Your task to perform on an android device: Search for "corsair k70" on newegg.com, select the first entry, add it to the cart, then select checkout. Image 0: 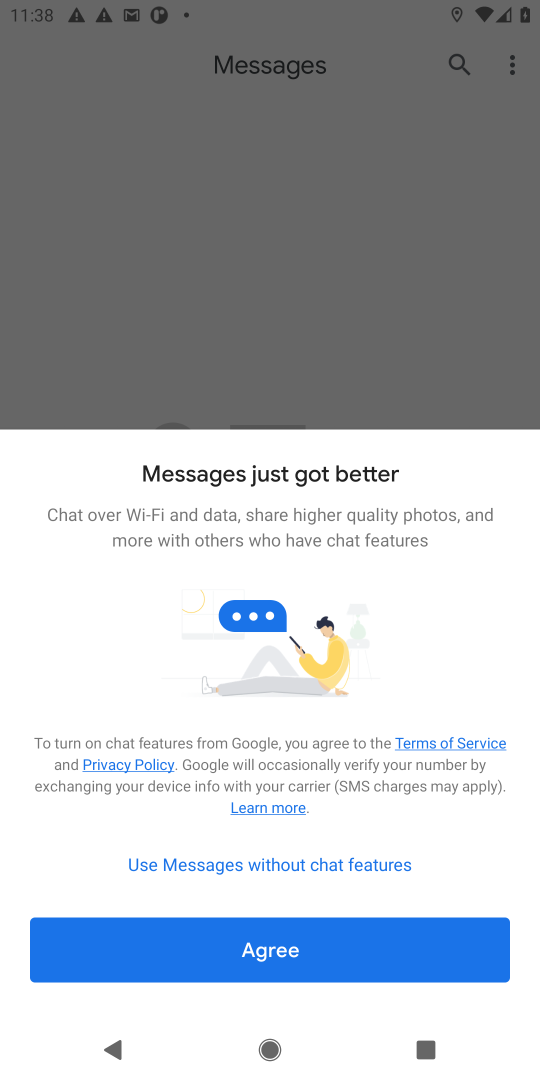
Step 0: press home button
Your task to perform on an android device: Search for "corsair k70" on newegg.com, select the first entry, add it to the cart, then select checkout. Image 1: 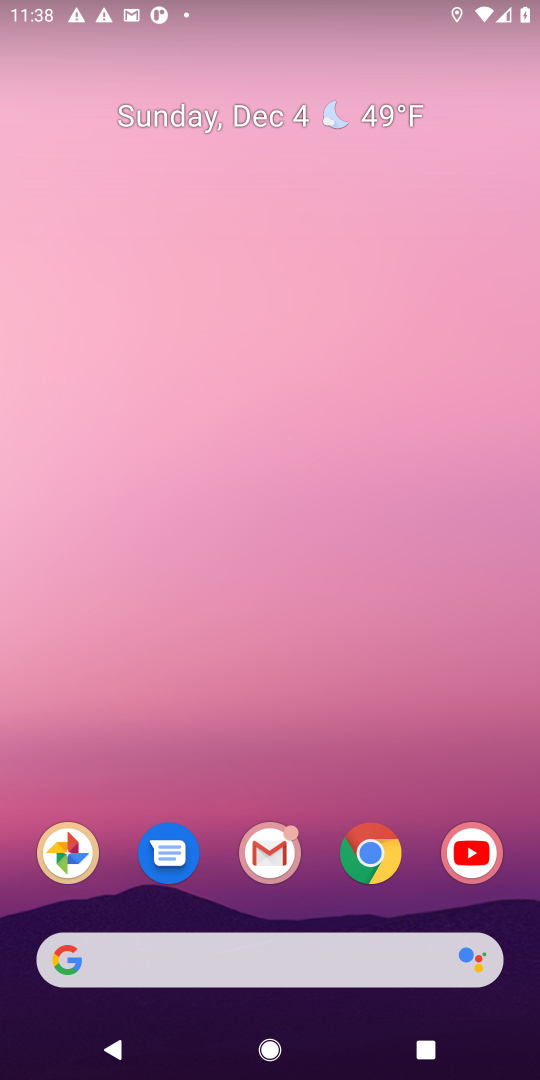
Step 1: click (385, 838)
Your task to perform on an android device: Search for "corsair k70" on newegg.com, select the first entry, add it to the cart, then select checkout. Image 2: 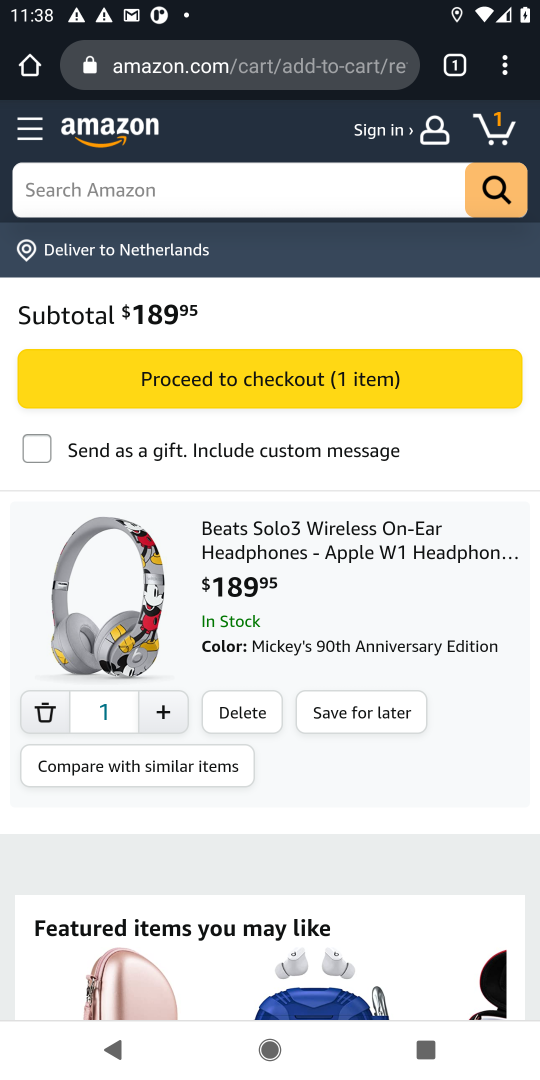
Step 2: click (271, 63)
Your task to perform on an android device: Search for "corsair k70" on newegg.com, select the first entry, add it to the cart, then select checkout. Image 3: 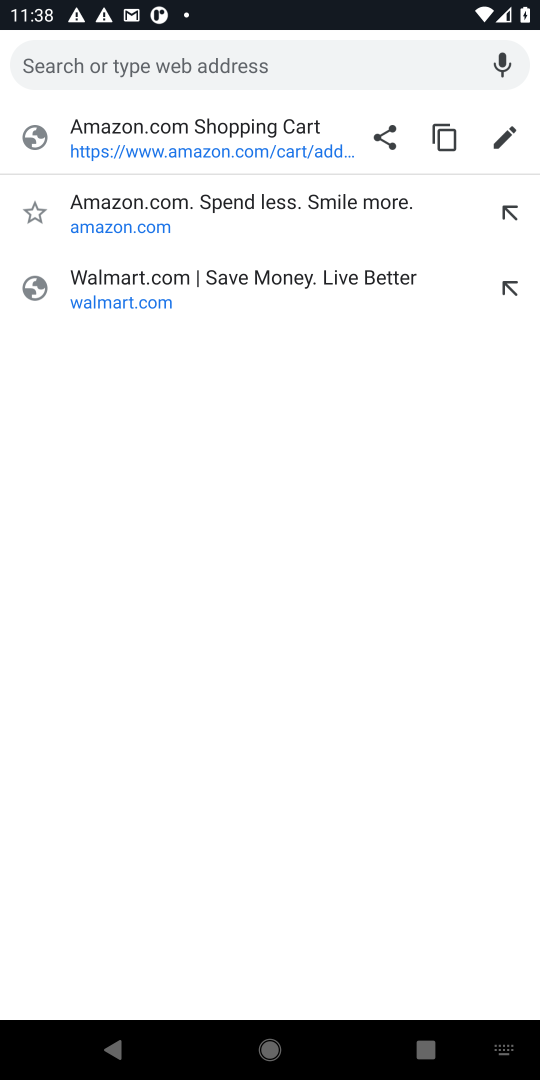
Step 3: type "newegg"
Your task to perform on an android device: Search for "corsair k70" on newegg.com, select the first entry, add it to the cart, then select checkout. Image 4: 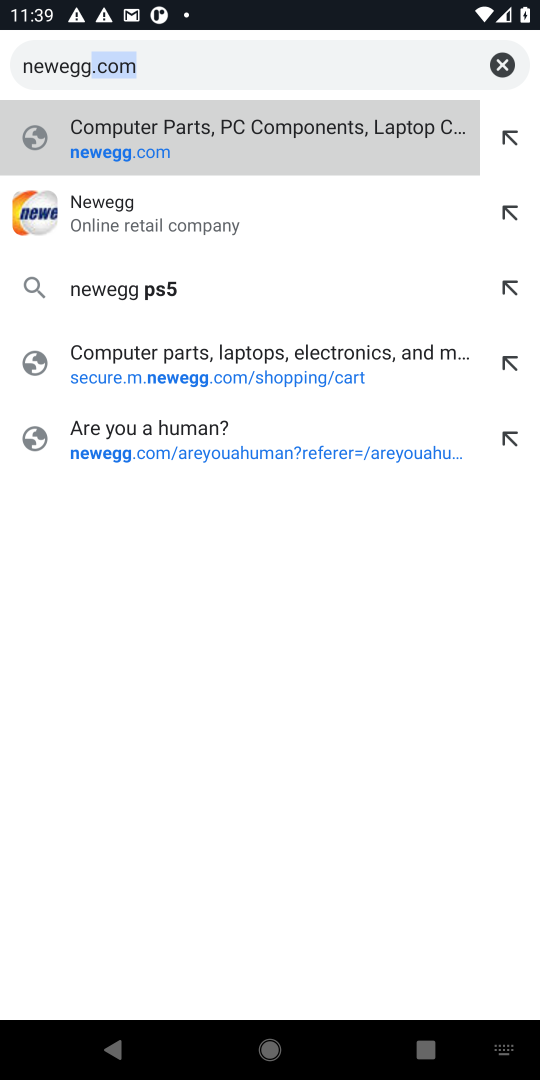
Step 4: click (270, 154)
Your task to perform on an android device: Search for "corsair k70" on newegg.com, select the first entry, add it to the cart, then select checkout. Image 5: 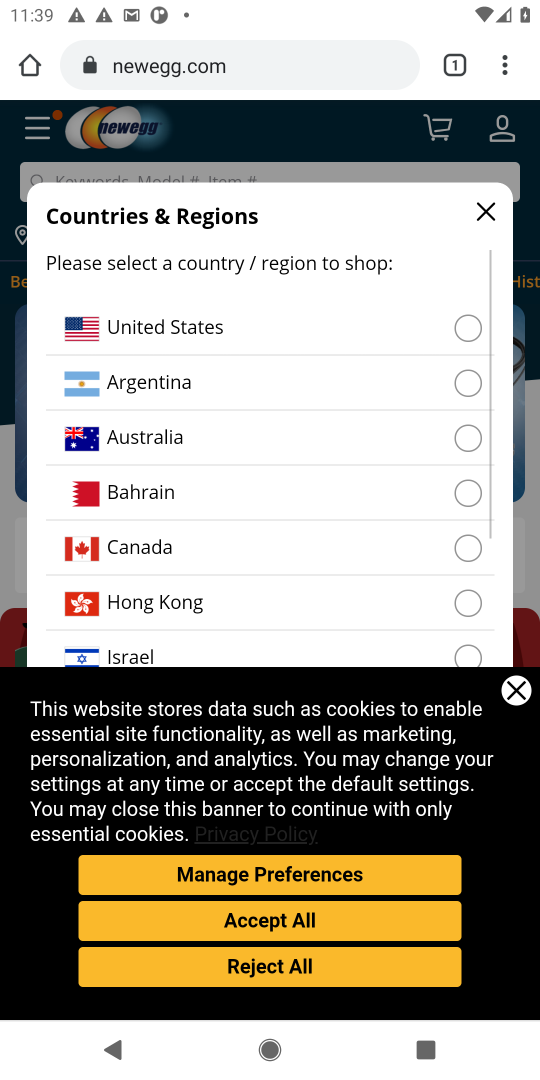
Step 5: click (224, 930)
Your task to perform on an android device: Search for "corsair k70" on newegg.com, select the first entry, add it to the cart, then select checkout. Image 6: 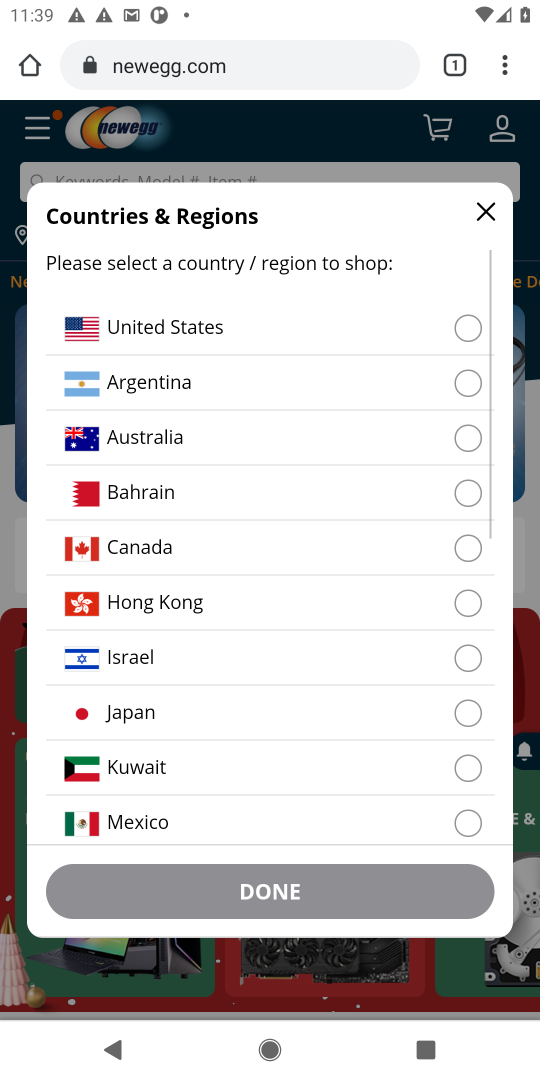
Step 6: click (139, 812)
Your task to perform on an android device: Search for "corsair k70" on newegg.com, select the first entry, add it to the cart, then select checkout. Image 7: 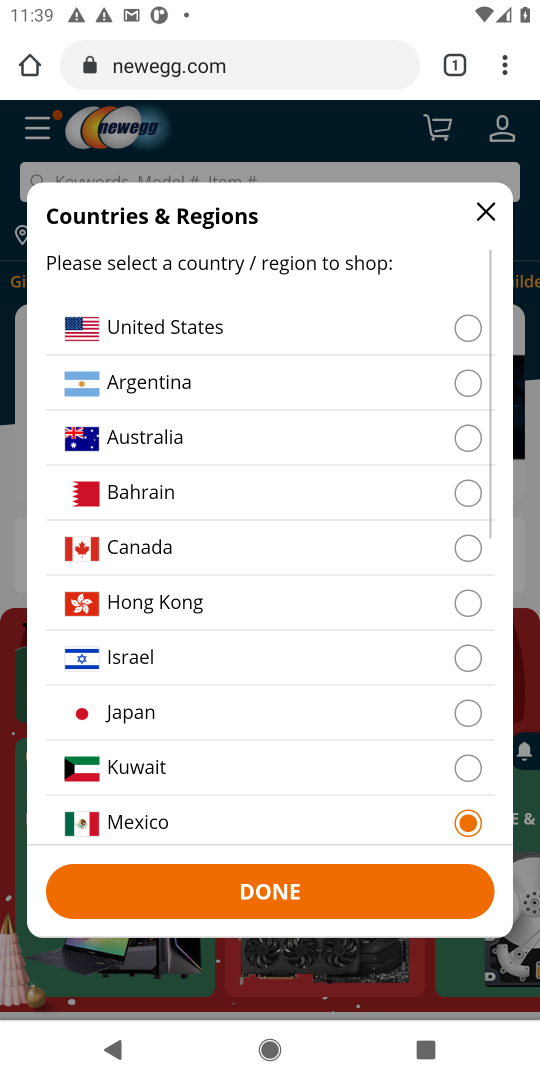
Step 7: click (161, 871)
Your task to perform on an android device: Search for "corsair k70" on newegg.com, select the first entry, add it to the cart, then select checkout. Image 8: 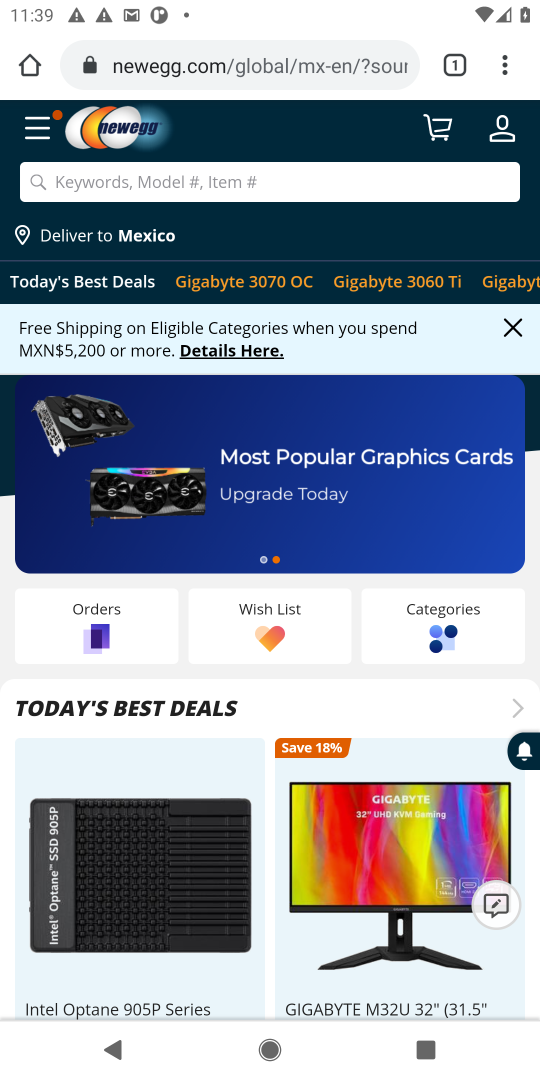
Step 8: click (74, 181)
Your task to perform on an android device: Search for "corsair k70" on newegg.com, select the first entry, add it to the cart, then select checkout. Image 9: 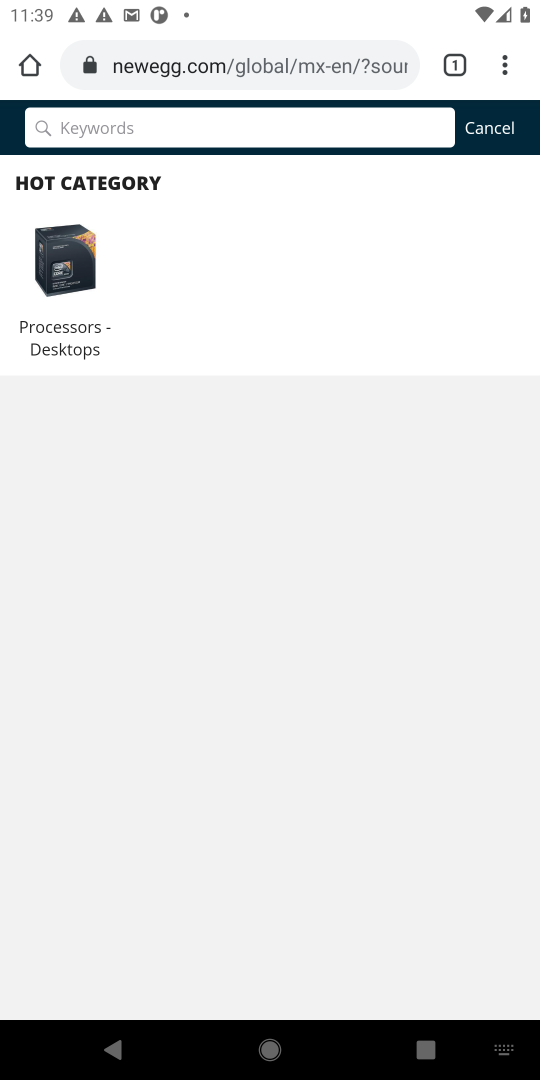
Step 9: type "corsair k70"
Your task to perform on an android device: Search for "corsair k70" on newegg.com, select the first entry, add it to the cart, then select checkout. Image 10: 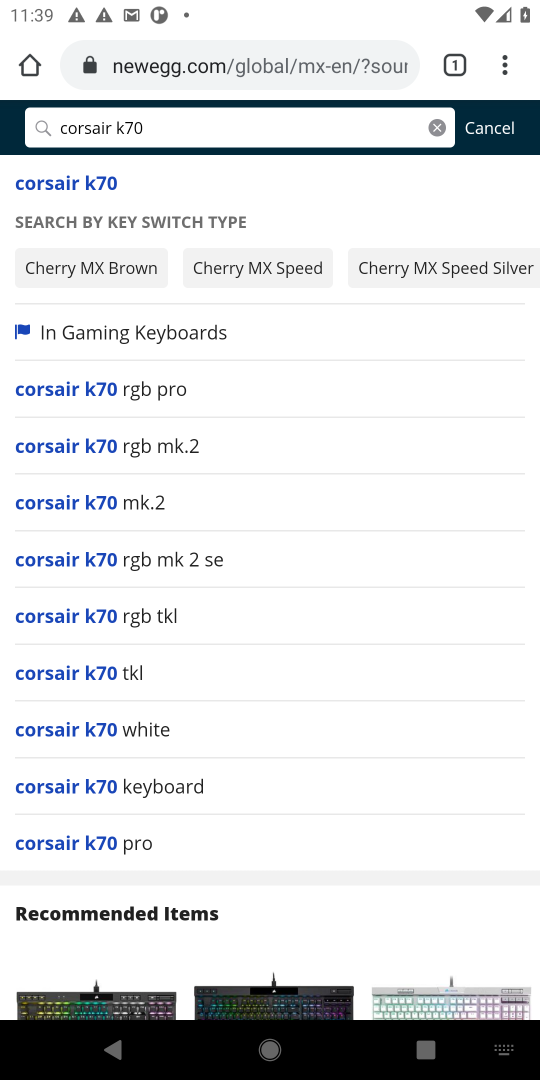
Step 10: click (107, 178)
Your task to perform on an android device: Search for "corsair k70" on newegg.com, select the first entry, add it to the cart, then select checkout. Image 11: 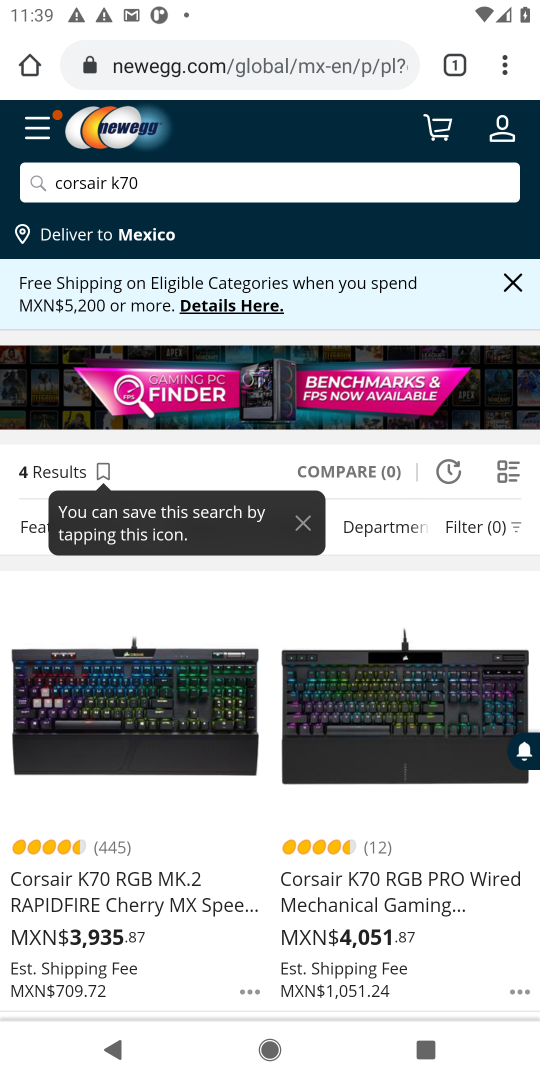
Step 11: click (120, 925)
Your task to perform on an android device: Search for "corsair k70" on newegg.com, select the first entry, add it to the cart, then select checkout. Image 12: 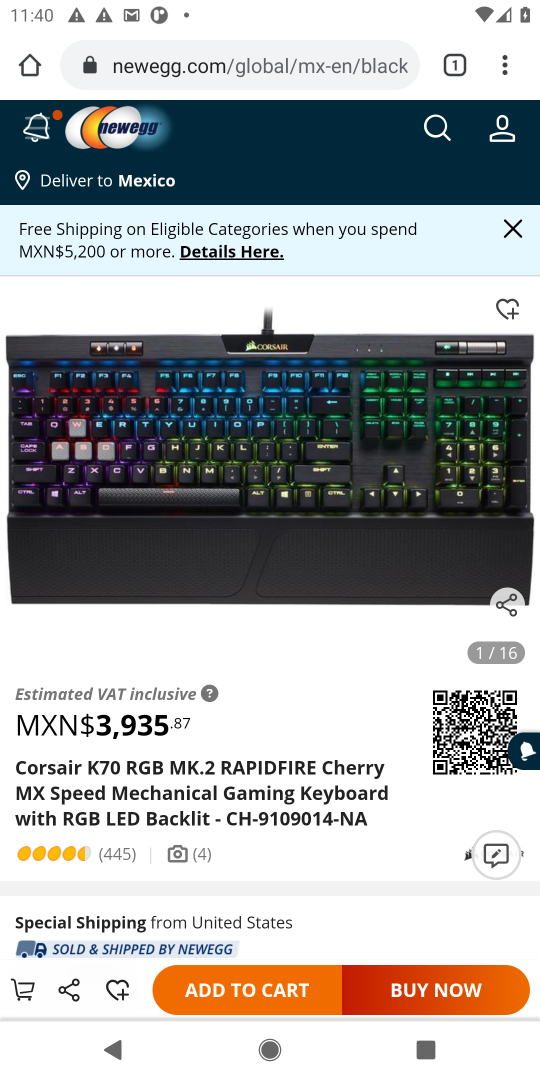
Step 12: click (229, 981)
Your task to perform on an android device: Search for "corsair k70" on newegg.com, select the first entry, add it to the cart, then select checkout. Image 13: 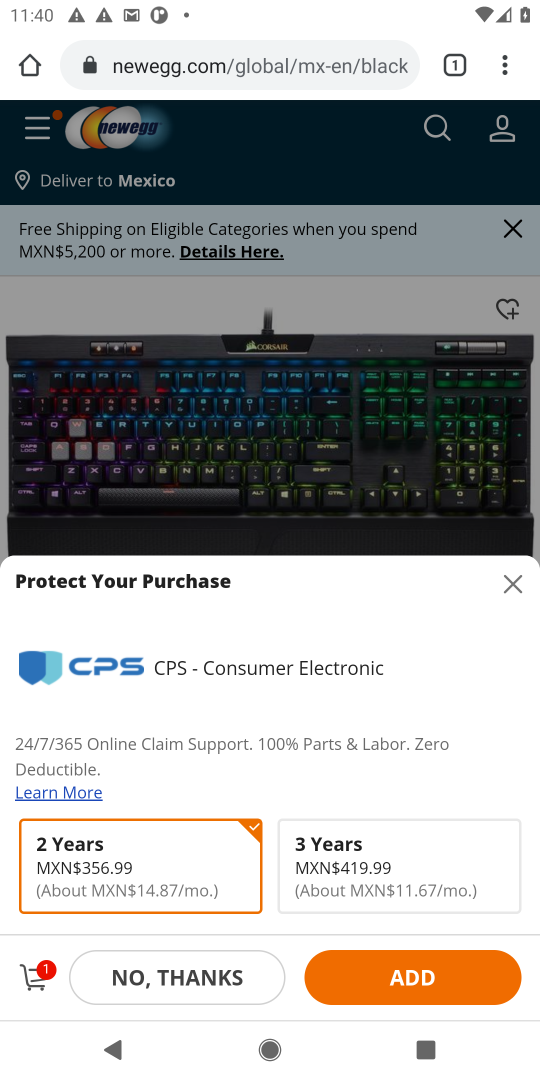
Step 13: click (39, 980)
Your task to perform on an android device: Search for "corsair k70" on newegg.com, select the first entry, add it to the cart, then select checkout. Image 14: 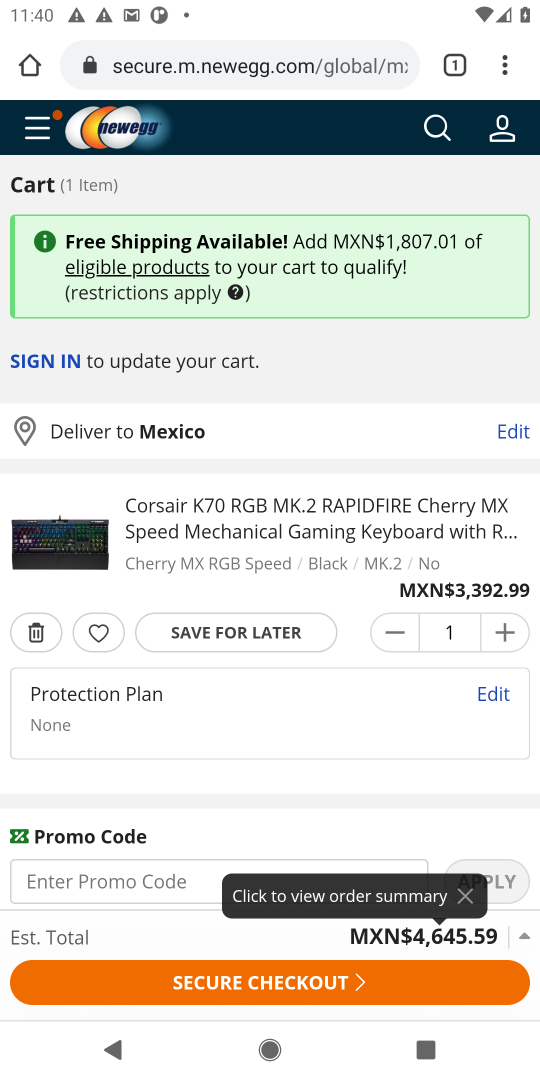
Step 14: click (132, 977)
Your task to perform on an android device: Search for "corsair k70" on newegg.com, select the first entry, add it to the cart, then select checkout. Image 15: 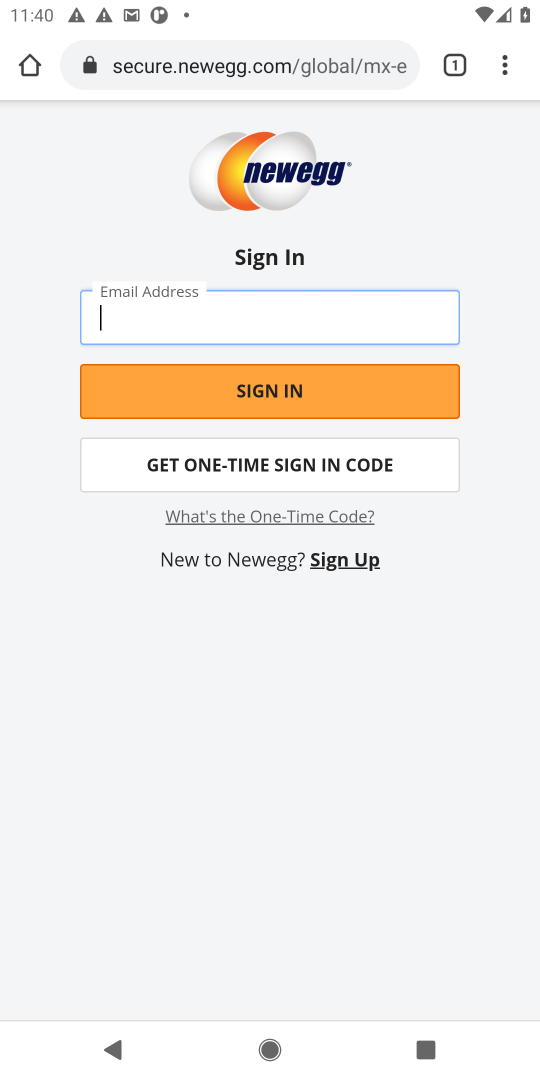
Step 15: task complete